Your task to perform on an android device: turn on the 24-hour format for clock Image 0: 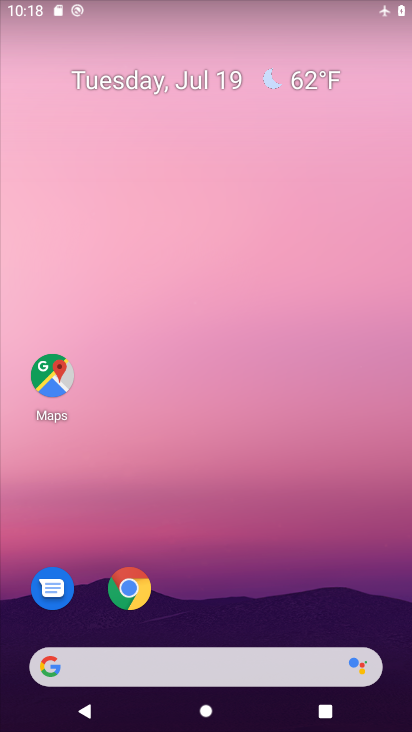
Step 0: drag from (191, 546) to (192, 246)
Your task to perform on an android device: turn on the 24-hour format for clock Image 1: 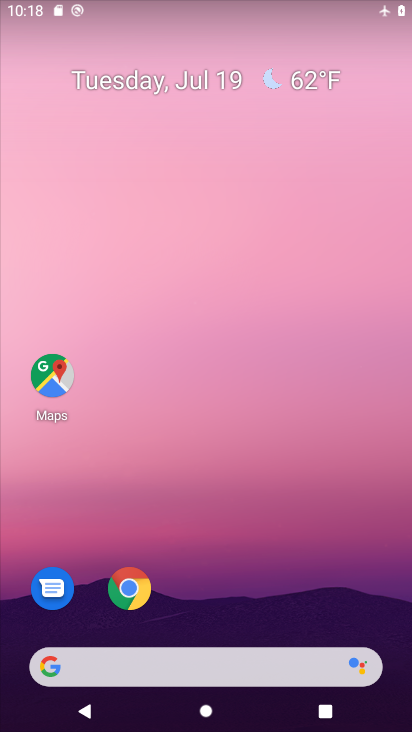
Step 1: drag from (188, 608) to (200, 9)
Your task to perform on an android device: turn on the 24-hour format for clock Image 2: 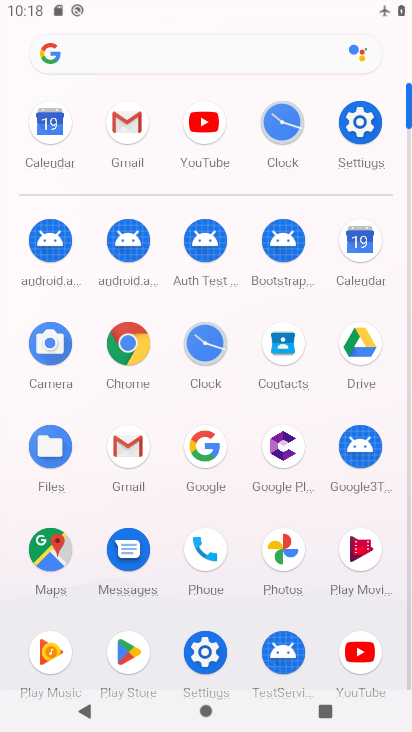
Step 2: click (198, 366)
Your task to perform on an android device: turn on the 24-hour format for clock Image 3: 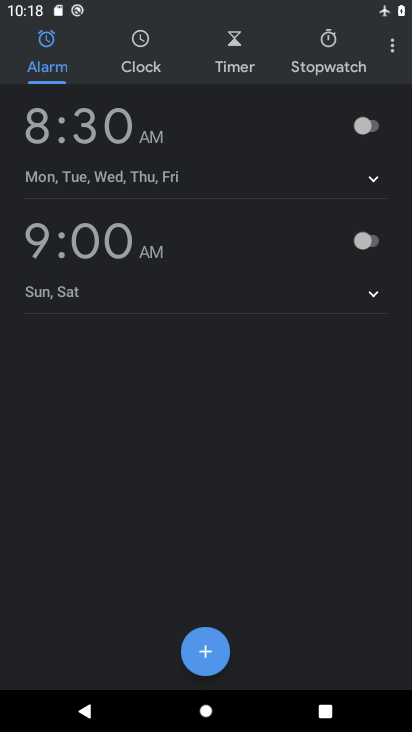
Step 3: click (396, 42)
Your task to perform on an android device: turn on the 24-hour format for clock Image 4: 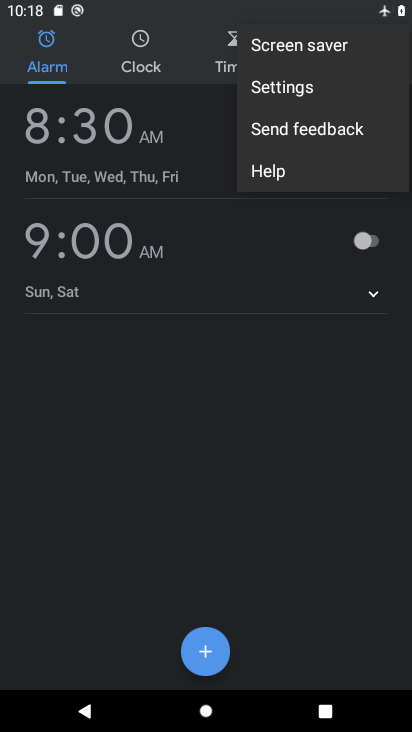
Step 4: click (270, 88)
Your task to perform on an android device: turn on the 24-hour format for clock Image 5: 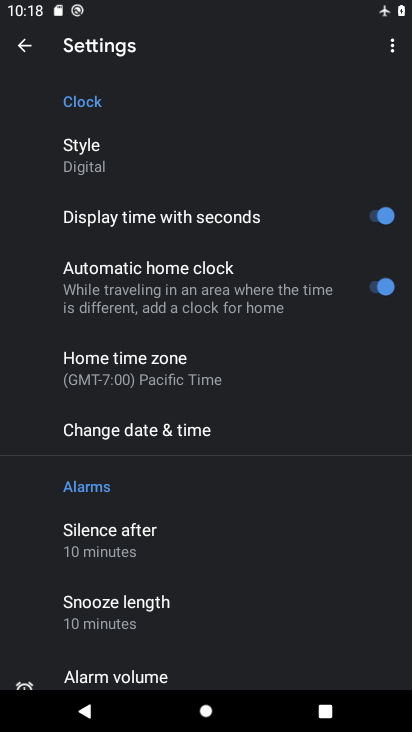
Step 5: click (142, 429)
Your task to perform on an android device: turn on the 24-hour format for clock Image 6: 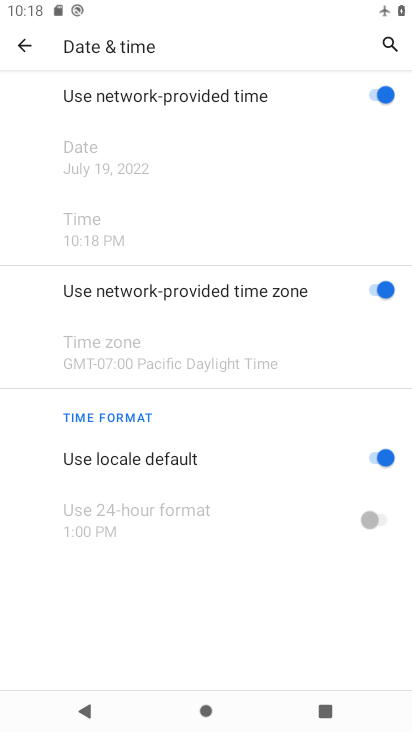
Step 6: click (372, 462)
Your task to perform on an android device: turn on the 24-hour format for clock Image 7: 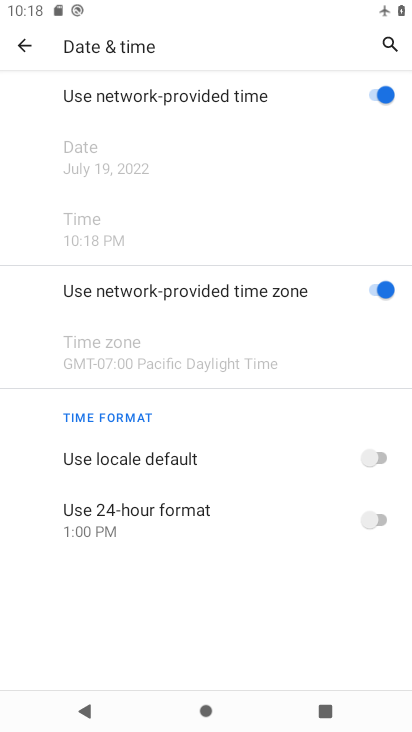
Step 7: click (383, 522)
Your task to perform on an android device: turn on the 24-hour format for clock Image 8: 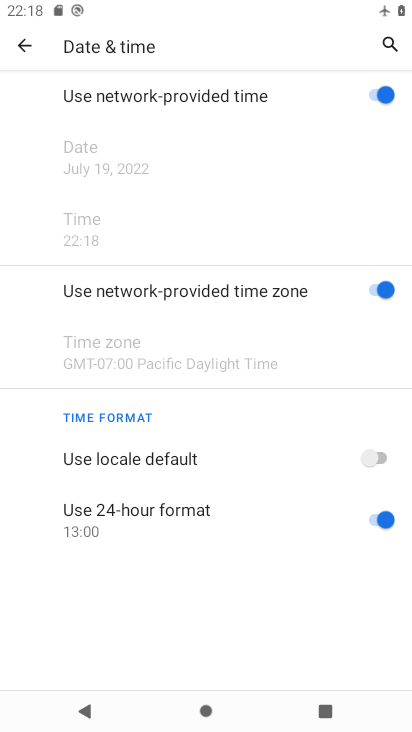
Step 8: task complete